Your task to perform on an android device: turn off notifications in google photos Image 0: 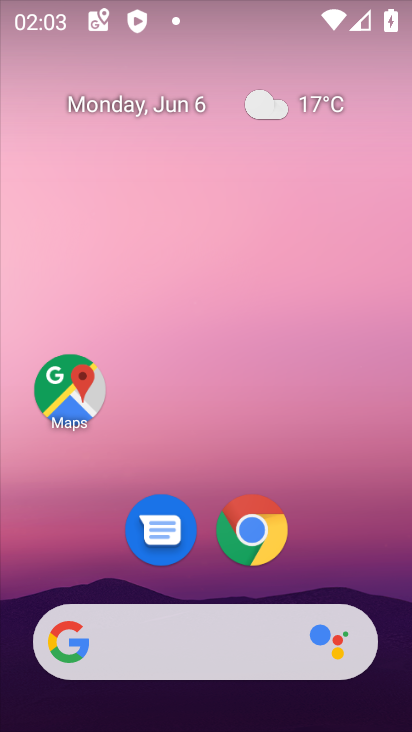
Step 0: drag from (318, 557) to (255, 225)
Your task to perform on an android device: turn off notifications in google photos Image 1: 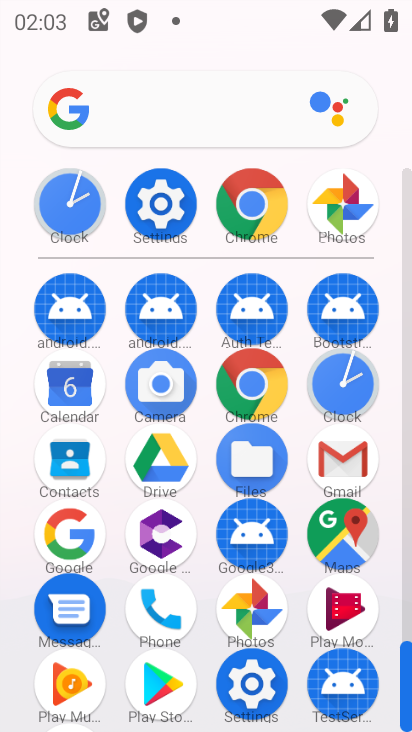
Step 1: click (233, 608)
Your task to perform on an android device: turn off notifications in google photos Image 2: 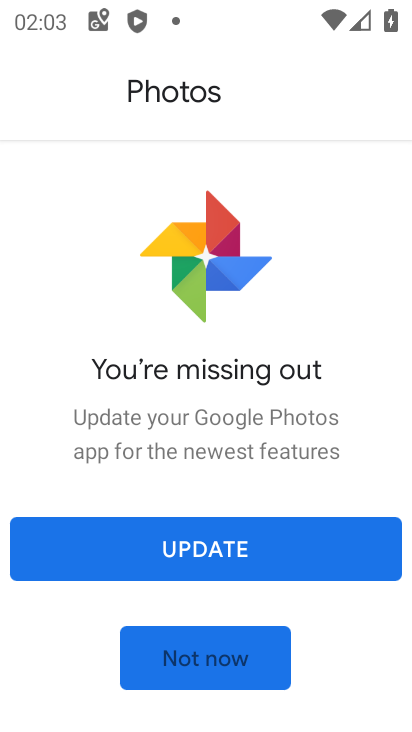
Step 2: click (258, 452)
Your task to perform on an android device: turn off notifications in google photos Image 3: 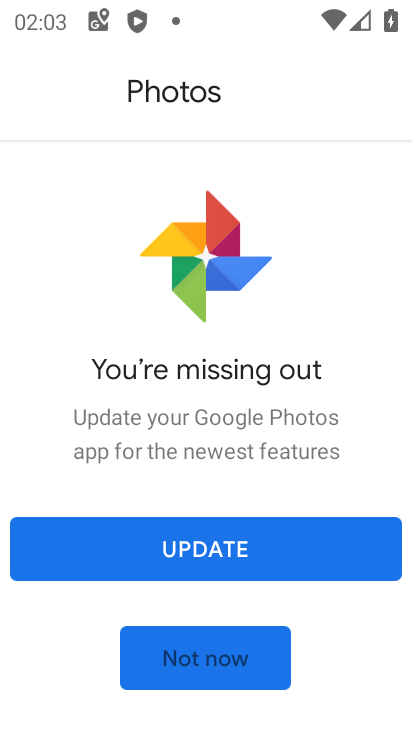
Step 3: click (166, 656)
Your task to perform on an android device: turn off notifications in google photos Image 4: 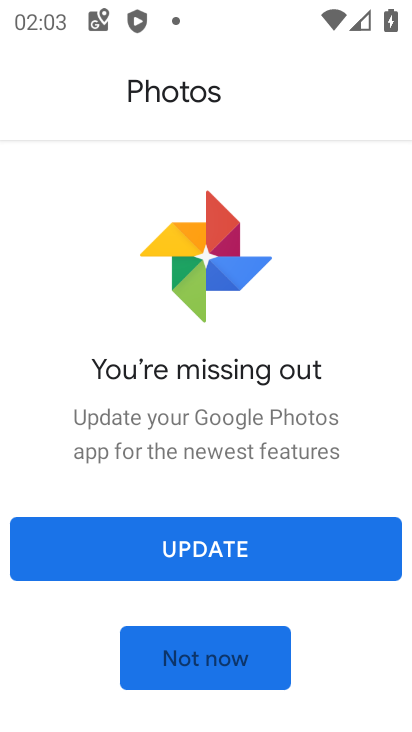
Step 4: click (216, 659)
Your task to perform on an android device: turn off notifications in google photos Image 5: 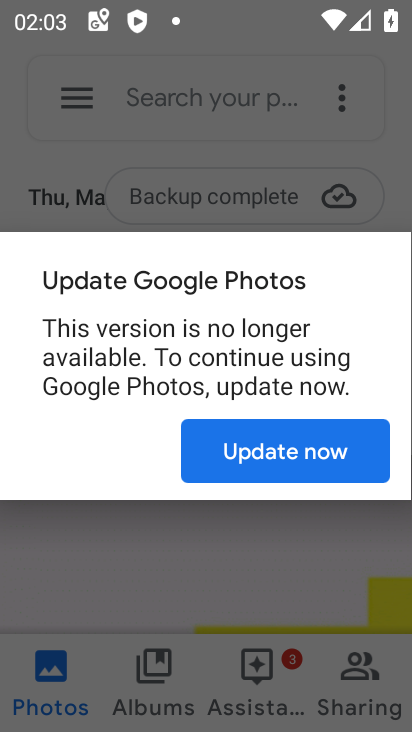
Step 5: click (287, 443)
Your task to perform on an android device: turn off notifications in google photos Image 6: 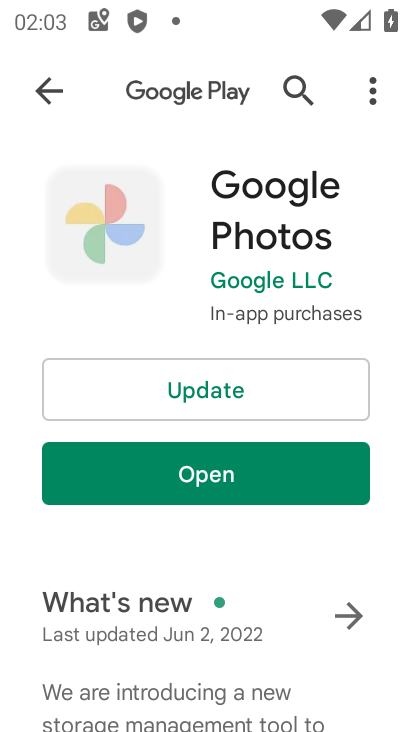
Step 6: press back button
Your task to perform on an android device: turn off notifications in google photos Image 7: 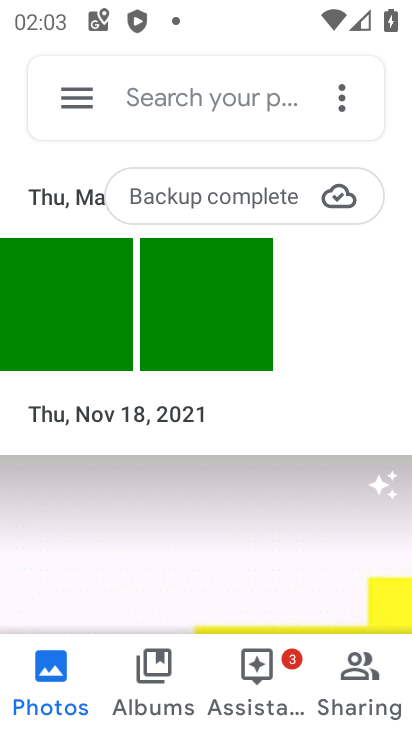
Step 7: click (74, 87)
Your task to perform on an android device: turn off notifications in google photos Image 8: 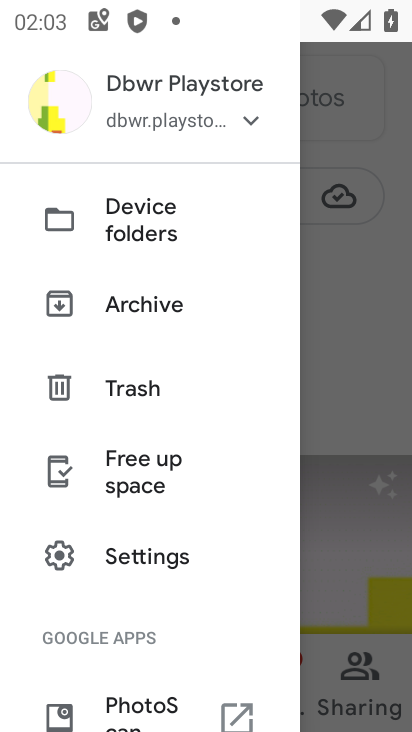
Step 8: click (138, 556)
Your task to perform on an android device: turn off notifications in google photos Image 9: 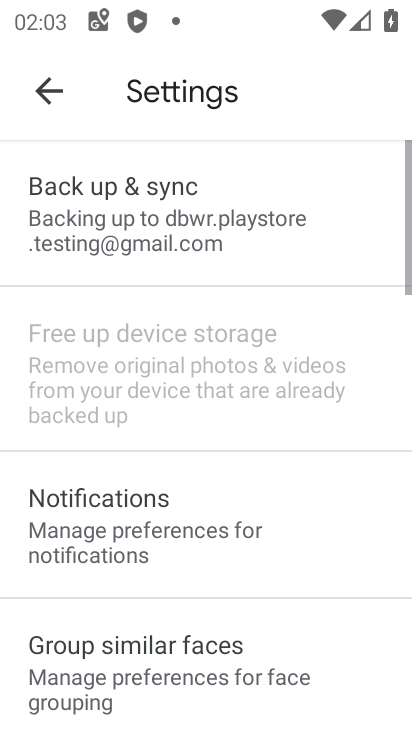
Step 9: click (116, 510)
Your task to perform on an android device: turn off notifications in google photos Image 10: 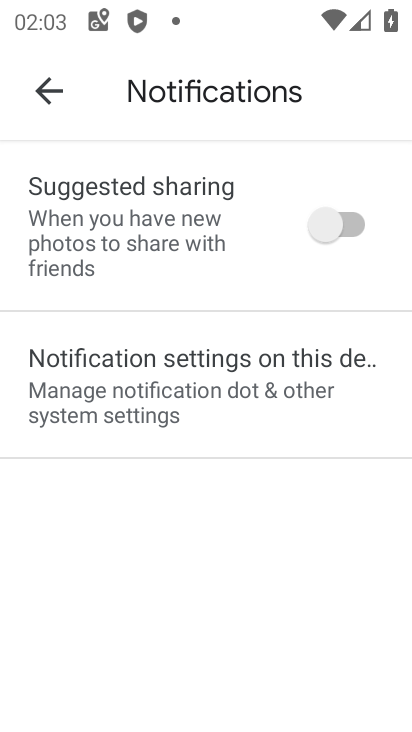
Step 10: click (154, 405)
Your task to perform on an android device: turn off notifications in google photos Image 11: 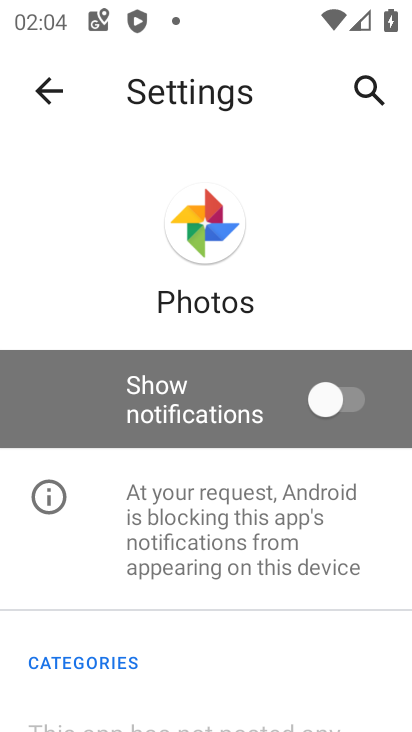
Step 11: task complete